Your task to perform on an android device: turn on notifications settings in the gmail app Image 0: 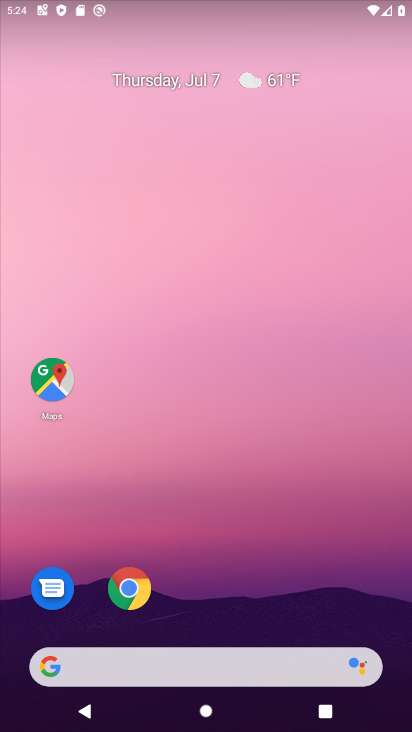
Step 0: drag from (209, 628) to (266, 39)
Your task to perform on an android device: turn on notifications settings in the gmail app Image 1: 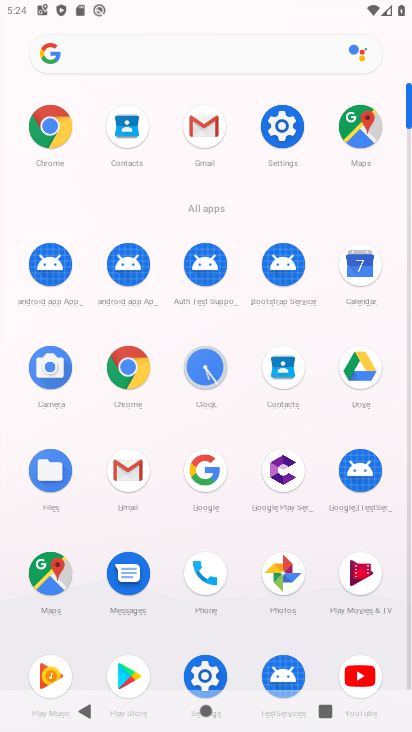
Step 1: click (212, 139)
Your task to perform on an android device: turn on notifications settings in the gmail app Image 2: 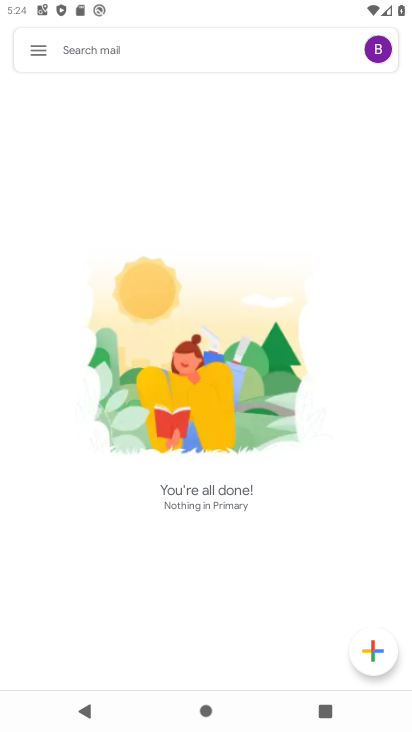
Step 2: click (37, 45)
Your task to perform on an android device: turn on notifications settings in the gmail app Image 3: 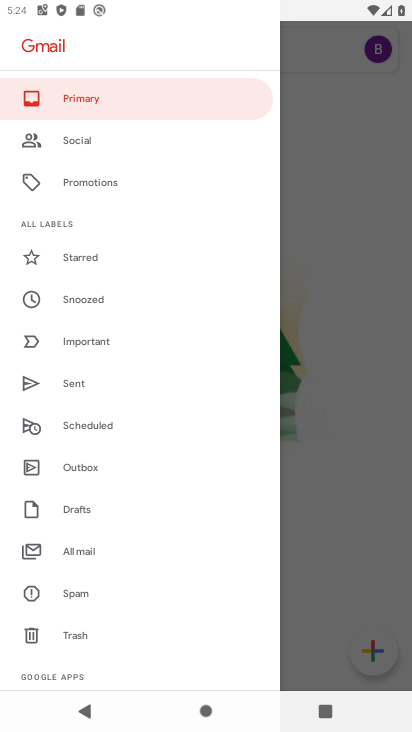
Step 3: drag from (90, 620) to (192, 76)
Your task to perform on an android device: turn on notifications settings in the gmail app Image 4: 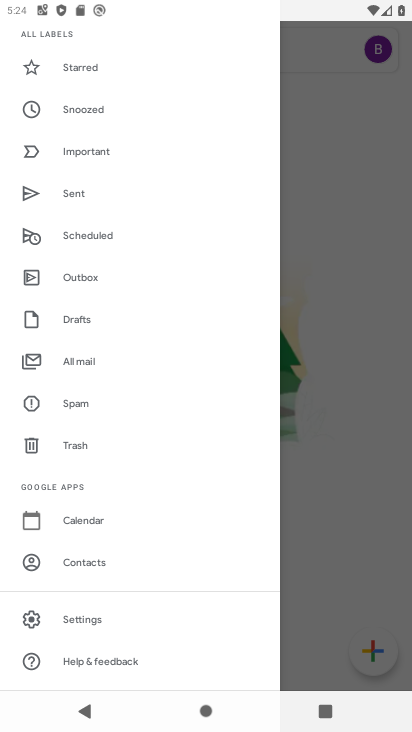
Step 4: click (98, 614)
Your task to perform on an android device: turn on notifications settings in the gmail app Image 5: 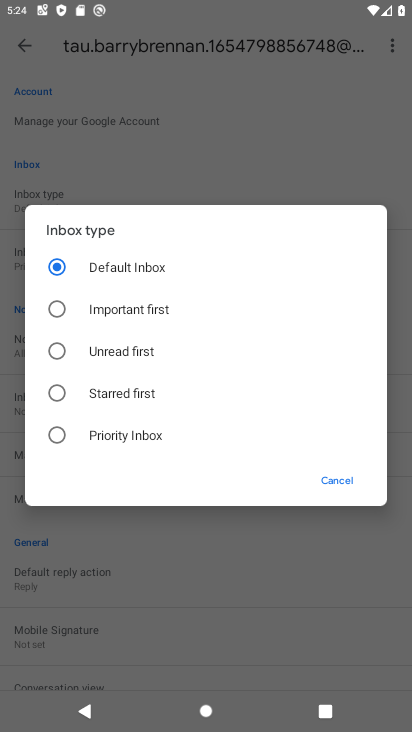
Step 5: click (333, 477)
Your task to perform on an android device: turn on notifications settings in the gmail app Image 6: 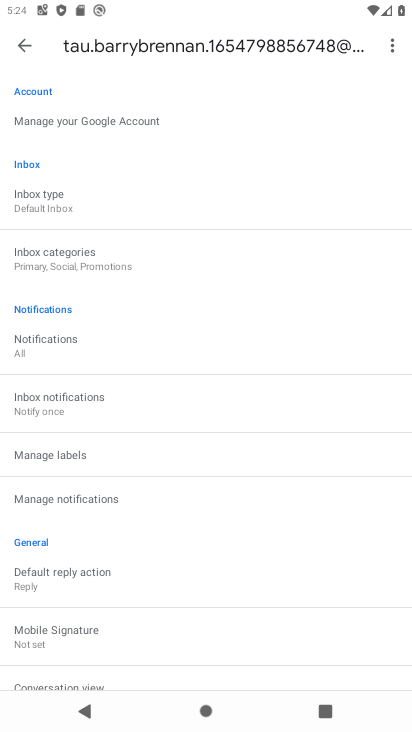
Step 6: click (52, 489)
Your task to perform on an android device: turn on notifications settings in the gmail app Image 7: 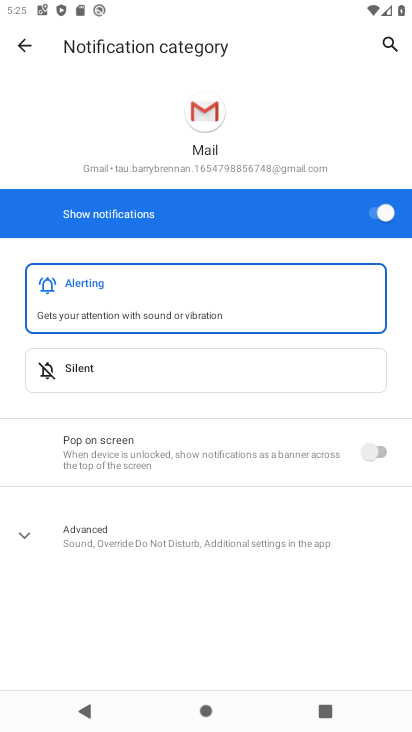
Step 7: task complete